Your task to perform on an android device: open app "Move to iOS" (install if not already installed) and go to login screen Image 0: 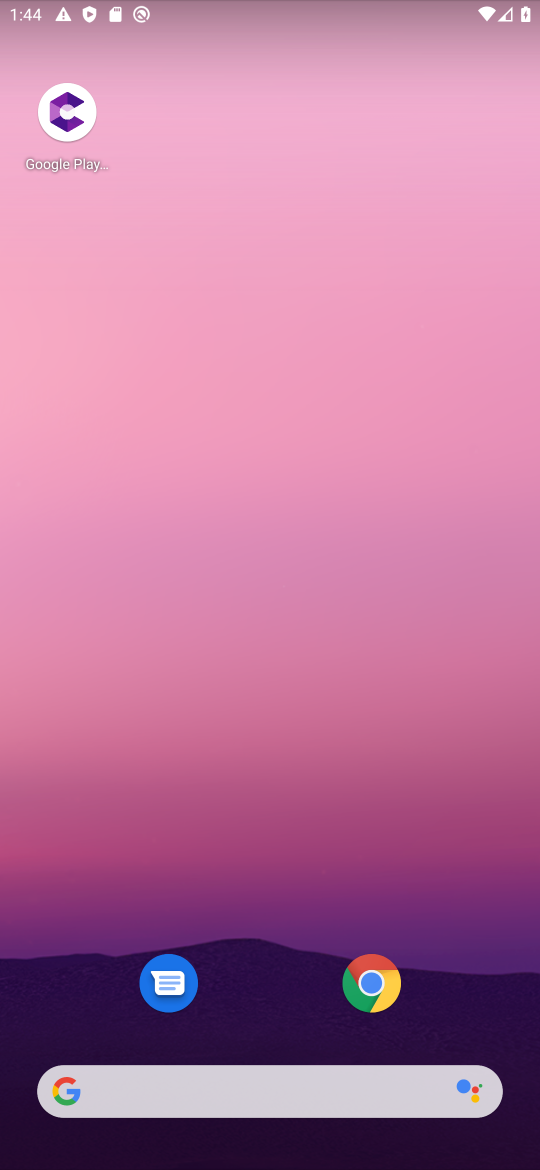
Step 0: drag from (433, 919) to (318, 281)
Your task to perform on an android device: open app "Move to iOS" (install if not already installed) and go to login screen Image 1: 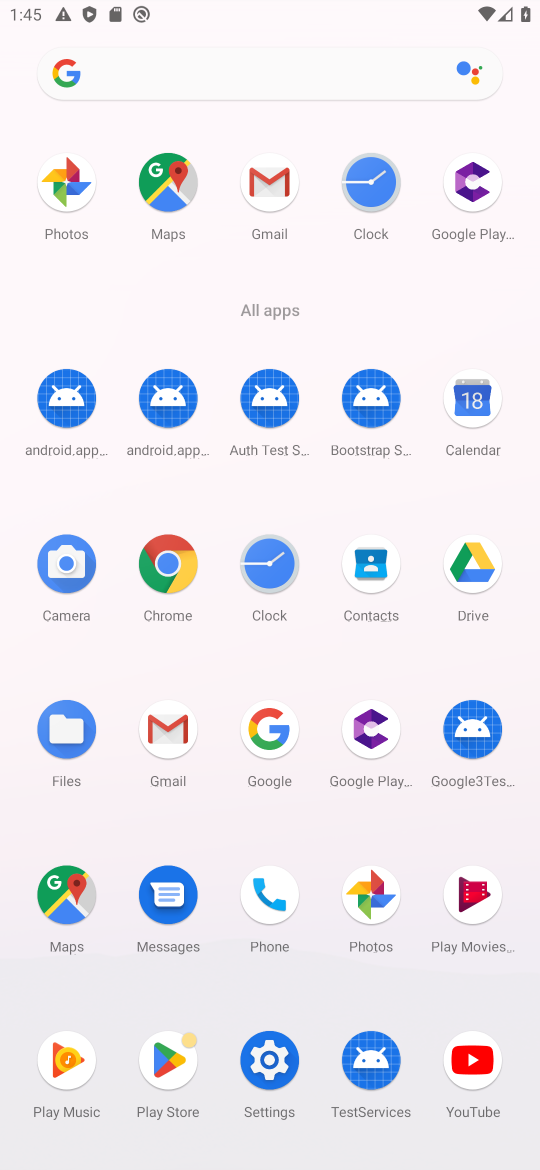
Step 1: click (168, 1048)
Your task to perform on an android device: open app "Move to iOS" (install if not already installed) and go to login screen Image 2: 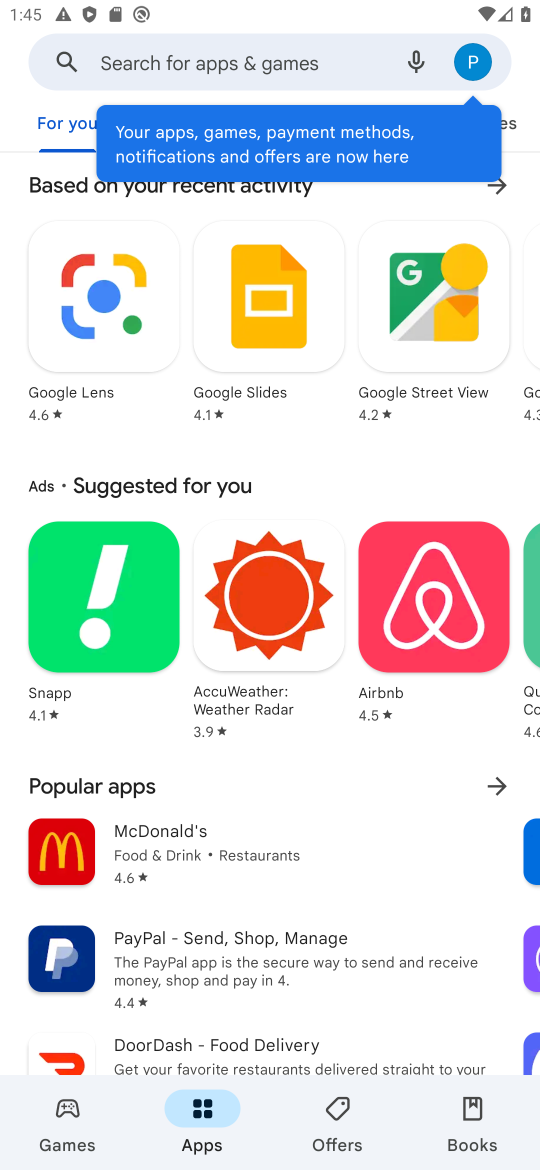
Step 2: click (312, 68)
Your task to perform on an android device: open app "Move to iOS" (install if not already installed) and go to login screen Image 3: 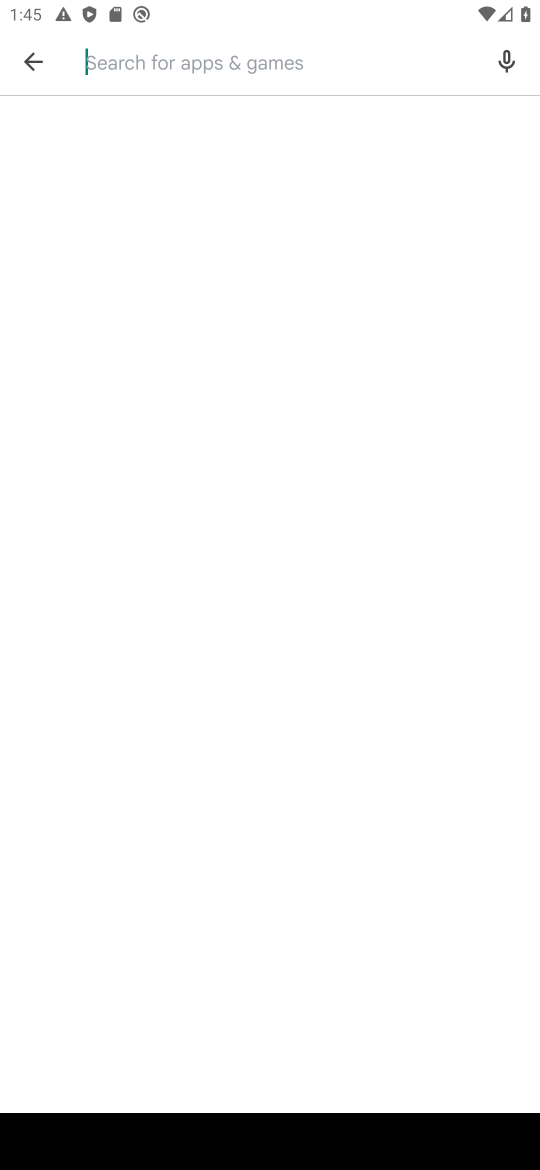
Step 3: type "move to ios"
Your task to perform on an android device: open app "Move to iOS" (install if not already installed) and go to login screen Image 4: 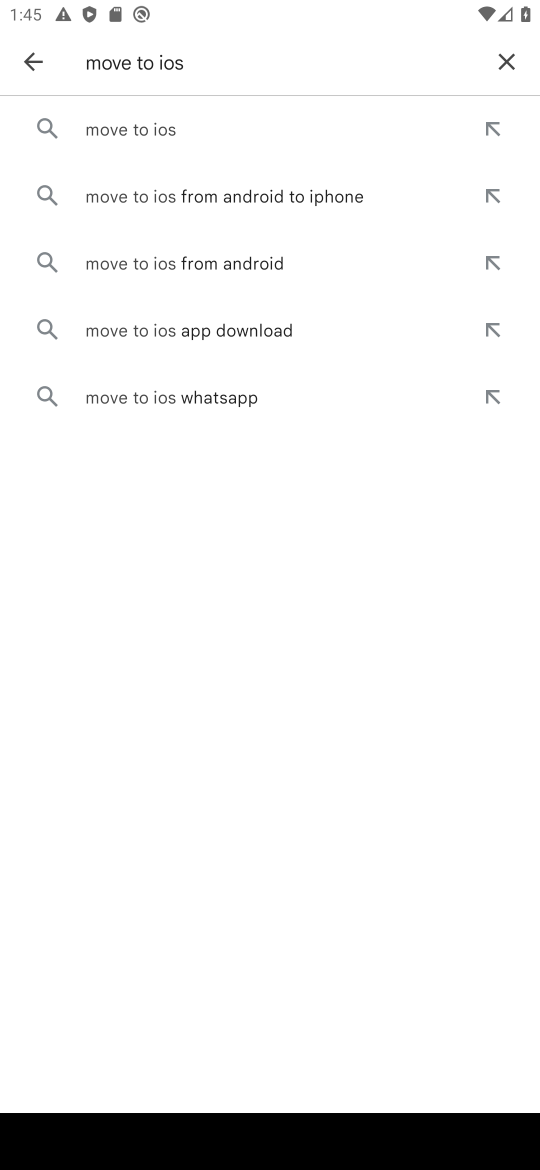
Step 4: click (187, 129)
Your task to perform on an android device: open app "Move to iOS" (install if not already installed) and go to login screen Image 5: 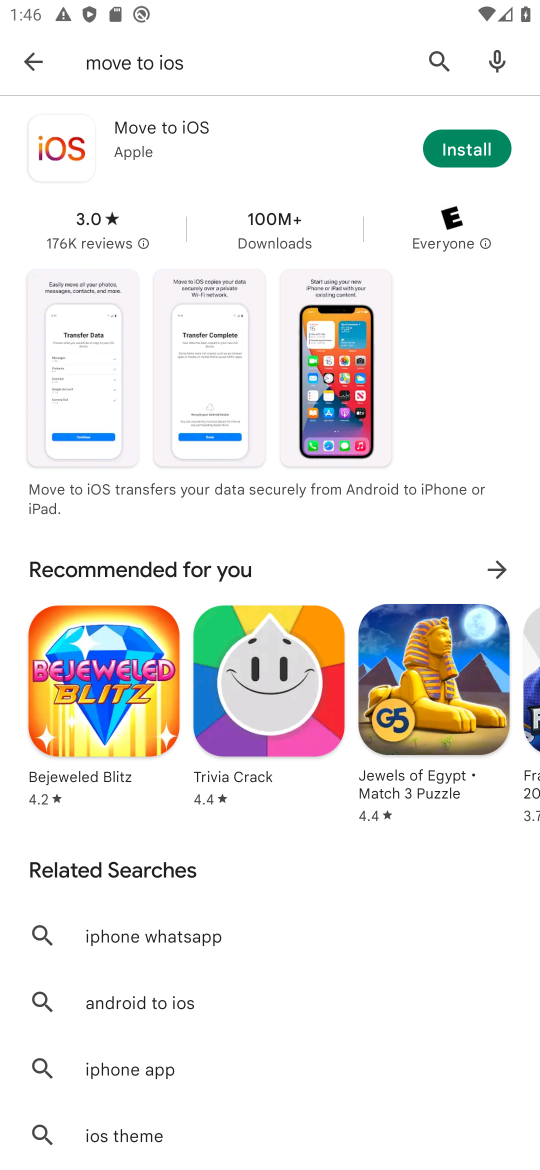
Step 5: click (463, 158)
Your task to perform on an android device: open app "Move to iOS" (install if not already installed) and go to login screen Image 6: 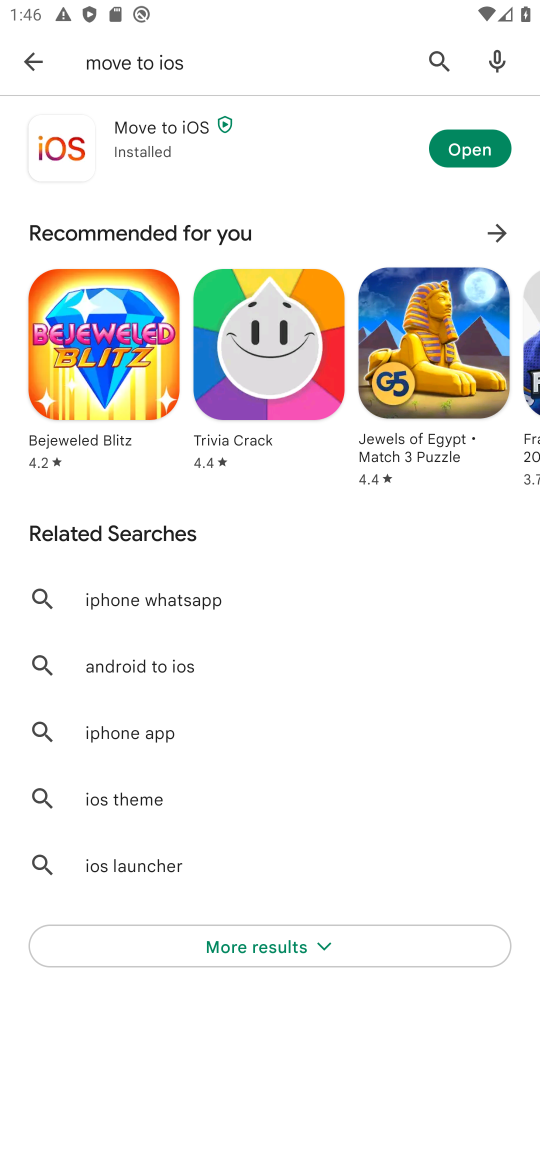
Step 6: click (459, 138)
Your task to perform on an android device: open app "Move to iOS" (install if not already installed) and go to login screen Image 7: 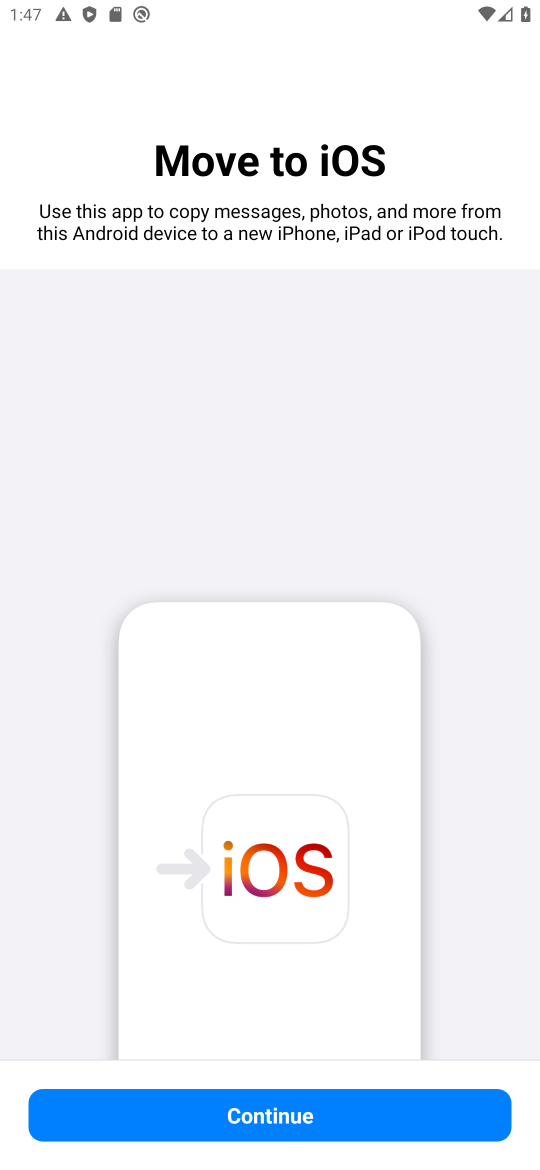
Step 7: click (324, 1127)
Your task to perform on an android device: open app "Move to iOS" (install if not already installed) and go to login screen Image 8: 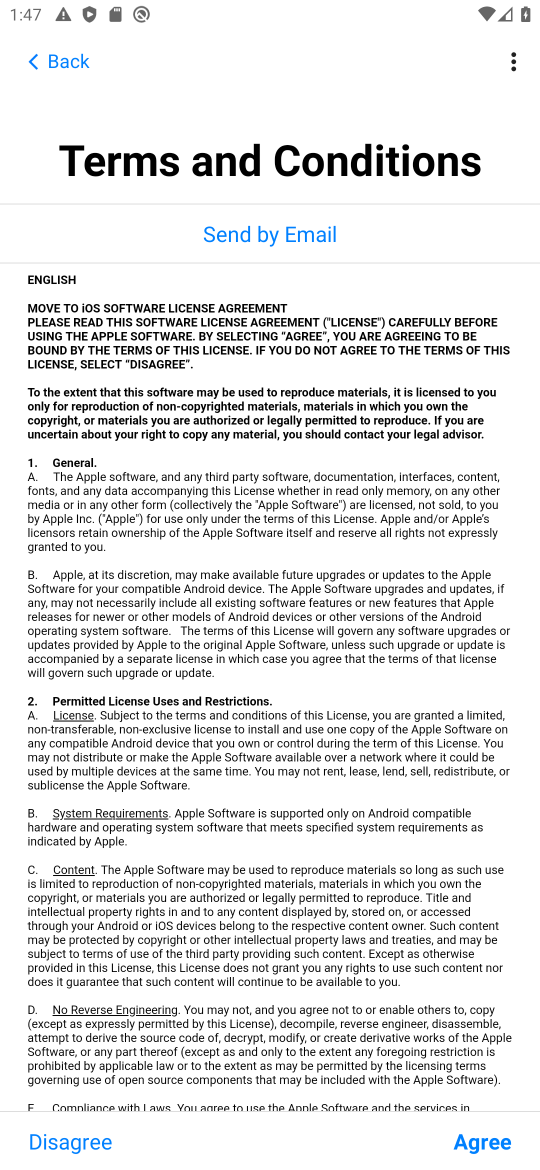
Step 8: click (498, 1137)
Your task to perform on an android device: open app "Move to iOS" (install if not already installed) and go to login screen Image 9: 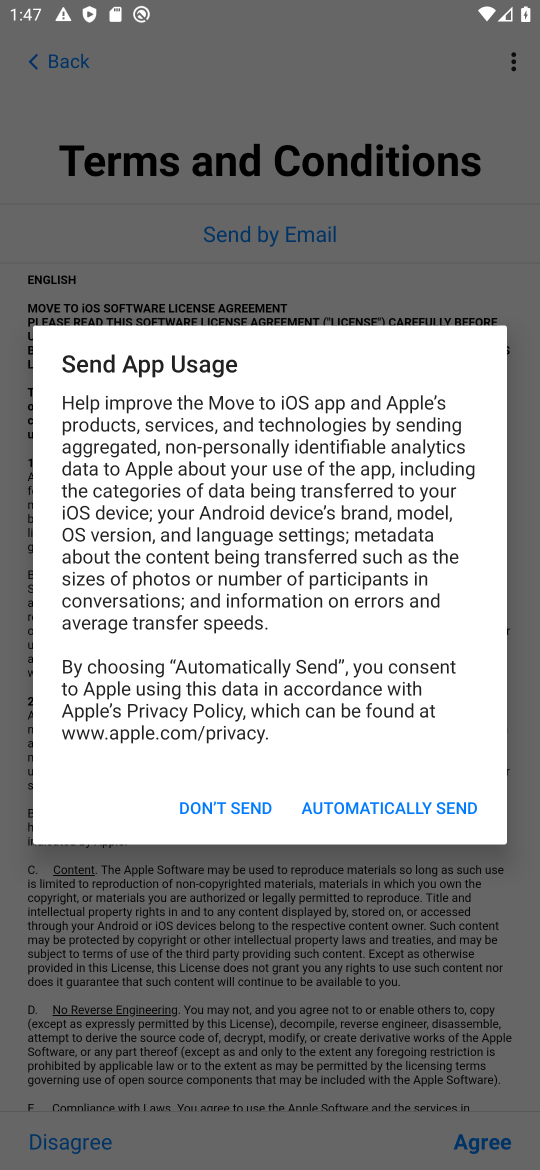
Step 9: click (241, 809)
Your task to perform on an android device: open app "Move to iOS" (install if not already installed) and go to login screen Image 10: 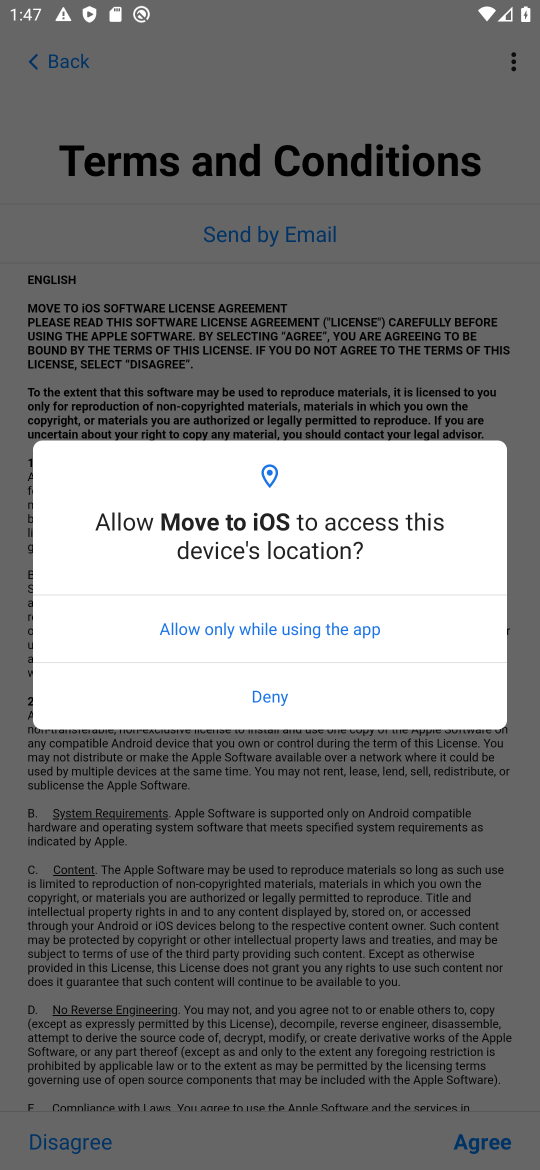
Step 10: click (311, 636)
Your task to perform on an android device: open app "Move to iOS" (install if not already installed) and go to login screen Image 11: 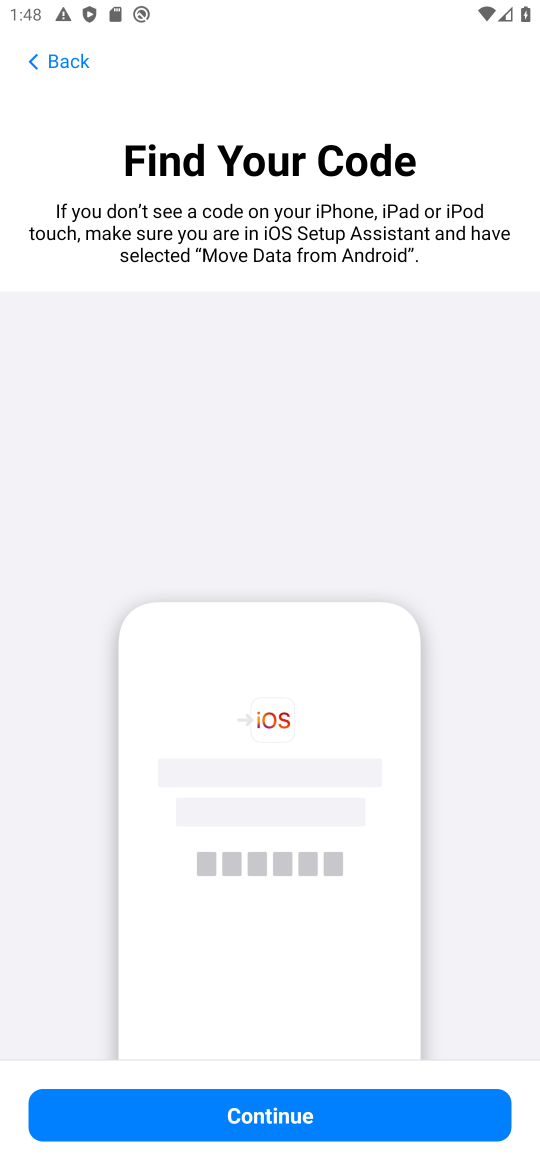
Step 11: click (288, 1116)
Your task to perform on an android device: open app "Move to iOS" (install if not already installed) and go to login screen Image 12: 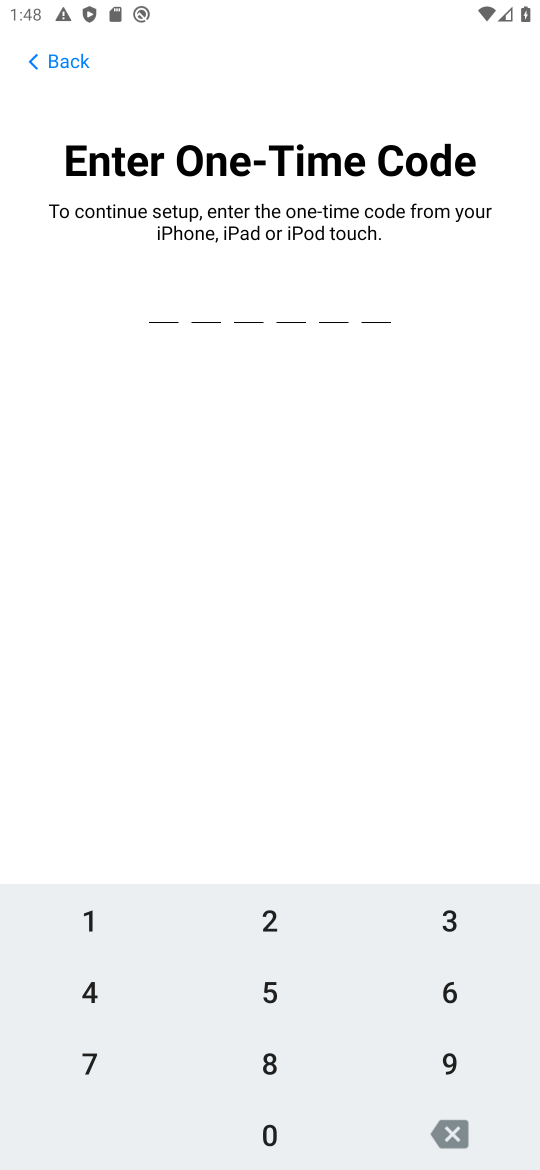
Step 12: task complete